Your task to perform on an android device: Check the weather Image 0: 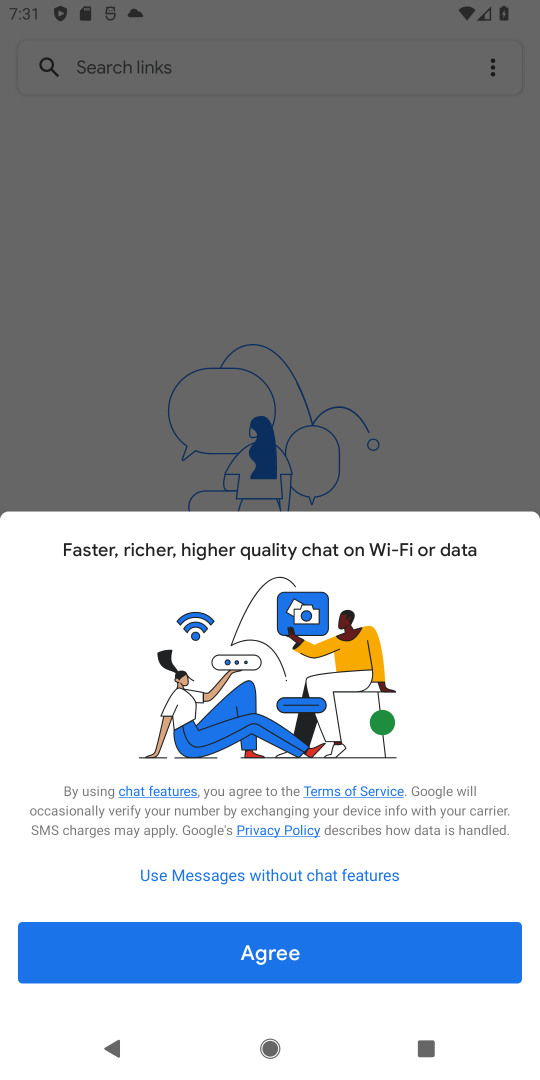
Step 0: press back button
Your task to perform on an android device: Check the weather Image 1: 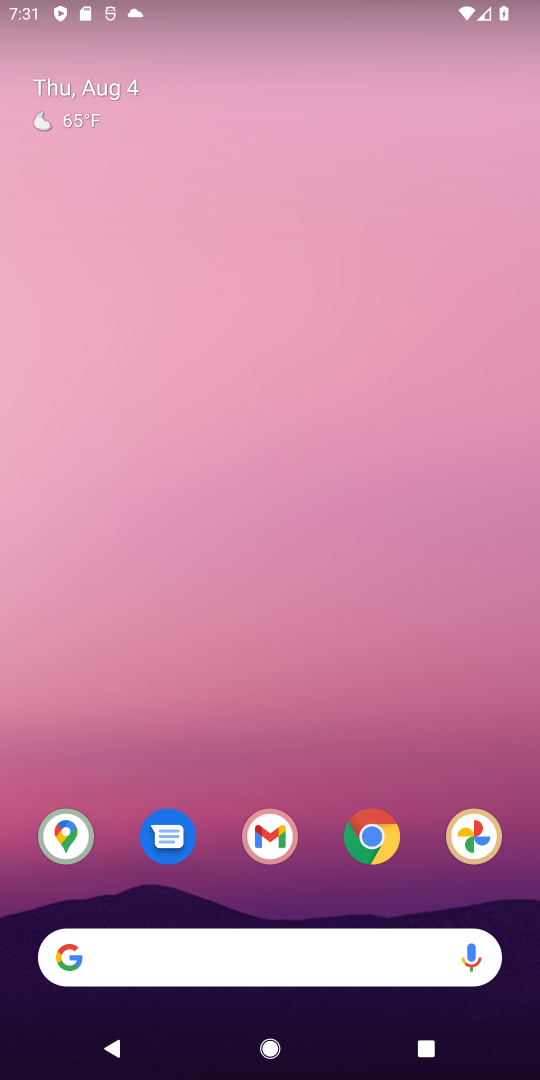
Step 1: press home button
Your task to perform on an android device: Check the weather Image 2: 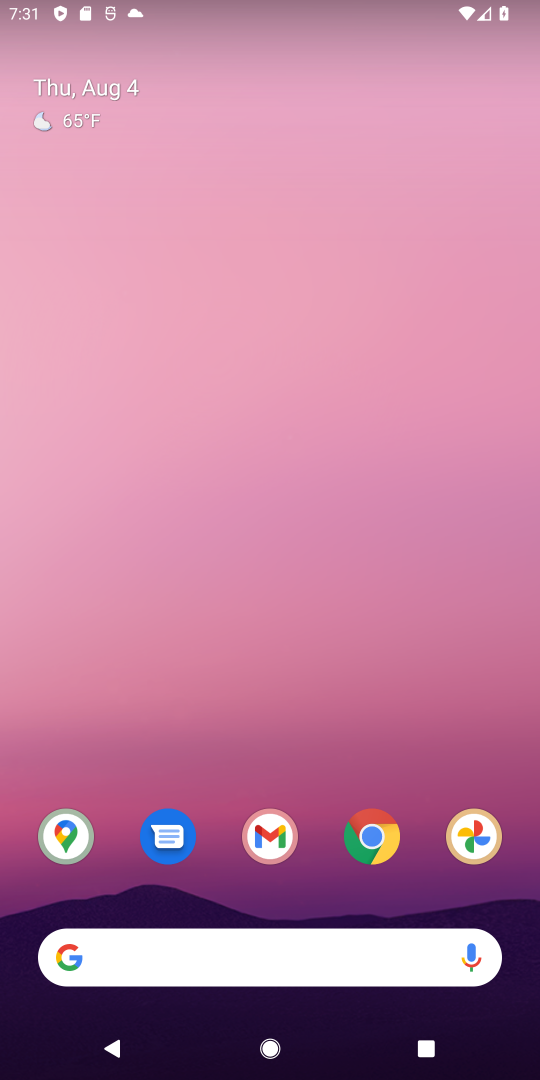
Step 2: click (203, 942)
Your task to perform on an android device: Check the weather Image 3: 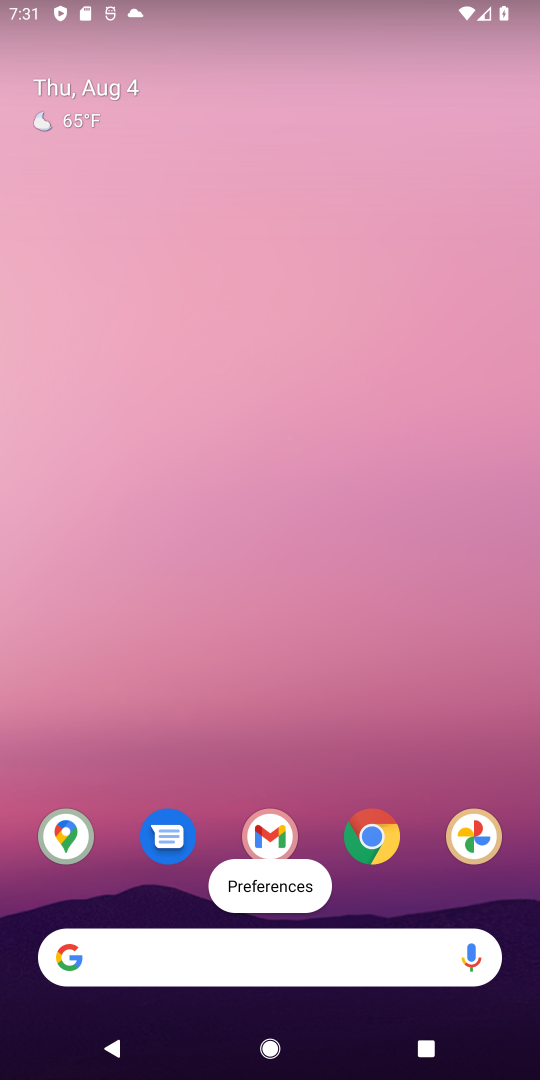
Step 3: click (149, 947)
Your task to perform on an android device: Check the weather Image 4: 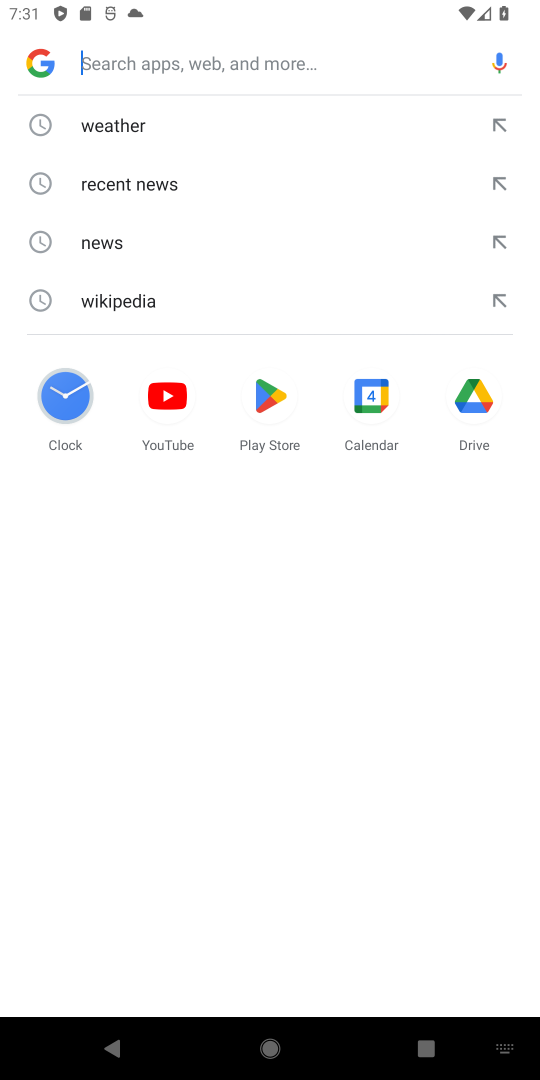
Step 4: click (85, 125)
Your task to perform on an android device: Check the weather Image 5: 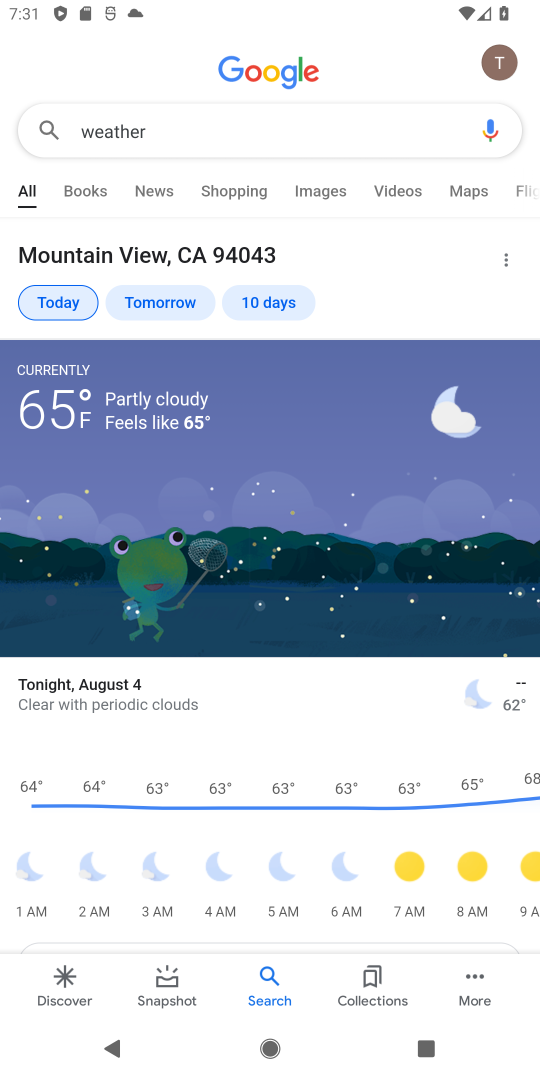
Step 5: task complete